Your task to perform on an android device: Open the web browser Image 0: 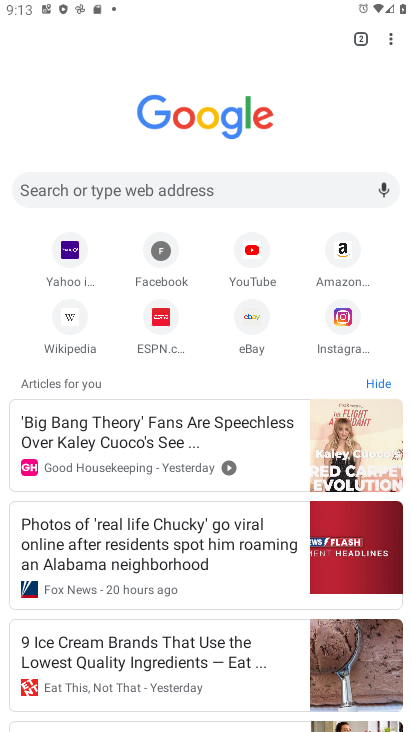
Step 0: task complete